Your task to perform on an android device: Open notification settings Image 0: 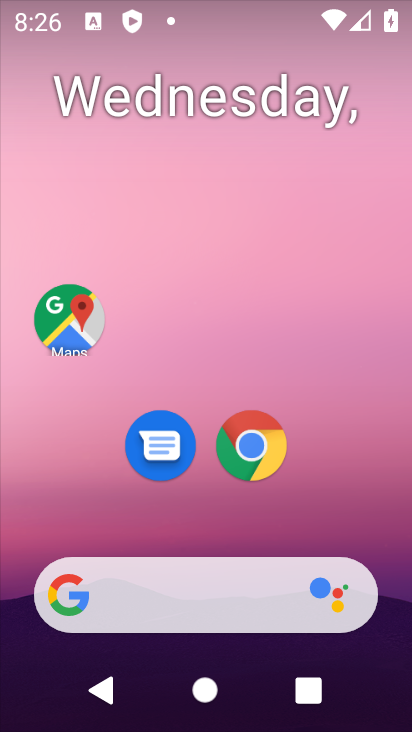
Step 0: drag from (351, 518) to (216, 1)
Your task to perform on an android device: Open notification settings Image 1: 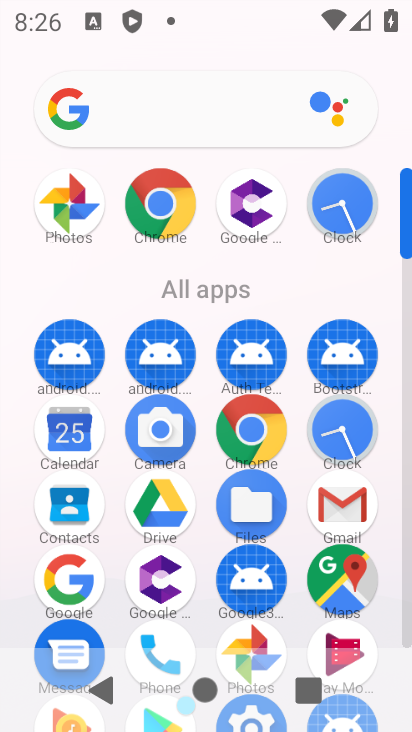
Step 1: drag from (398, 516) to (353, 109)
Your task to perform on an android device: Open notification settings Image 2: 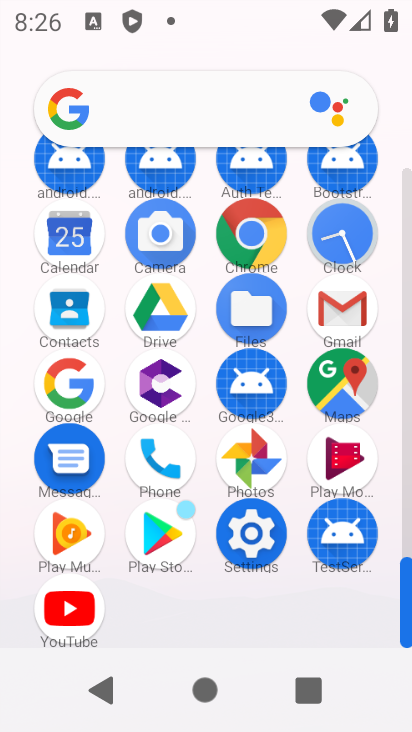
Step 2: click (277, 532)
Your task to perform on an android device: Open notification settings Image 3: 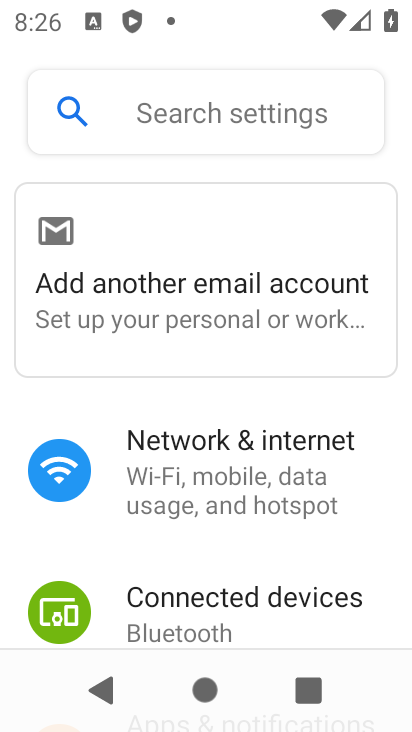
Step 3: drag from (164, 582) to (173, 197)
Your task to perform on an android device: Open notification settings Image 4: 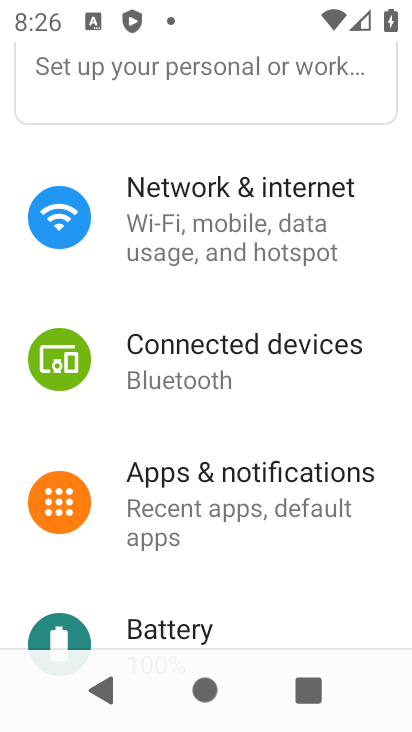
Step 4: click (287, 510)
Your task to perform on an android device: Open notification settings Image 5: 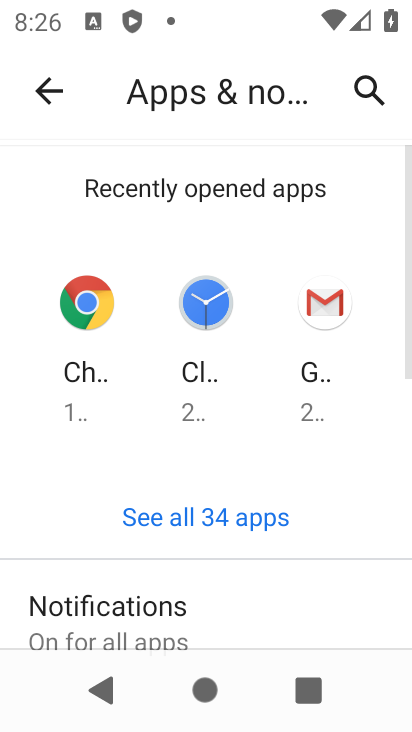
Step 5: click (129, 633)
Your task to perform on an android device: Open notification settings Image 6: 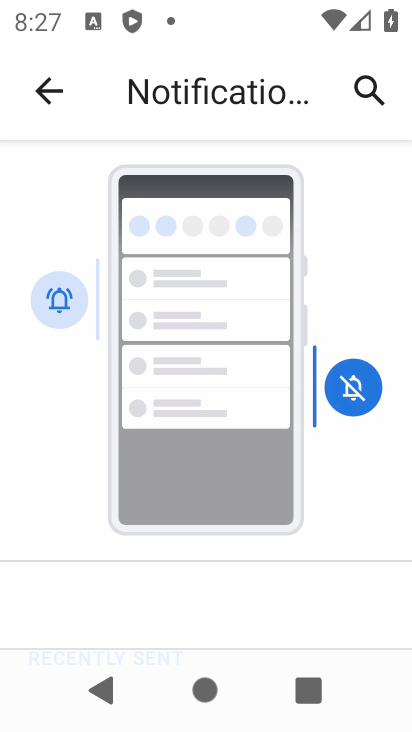
Step 6: task complete